Your task to perform on an android device: Search for Italian restaurants on Maps Image 0: 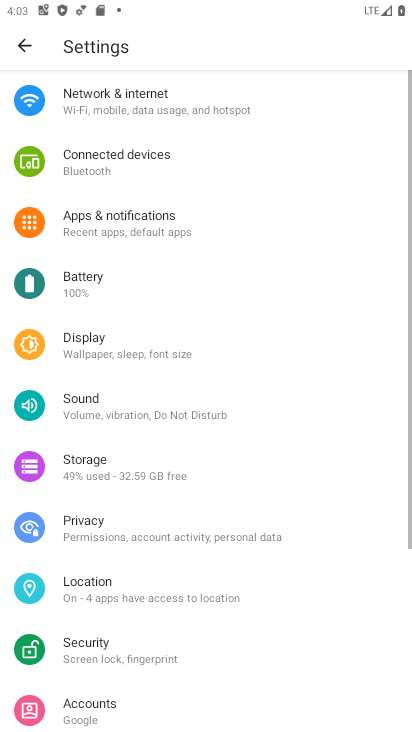
Step 0: press back button
Your task to perform on an android device: Search for Italian restaurants on Maps Image 1: 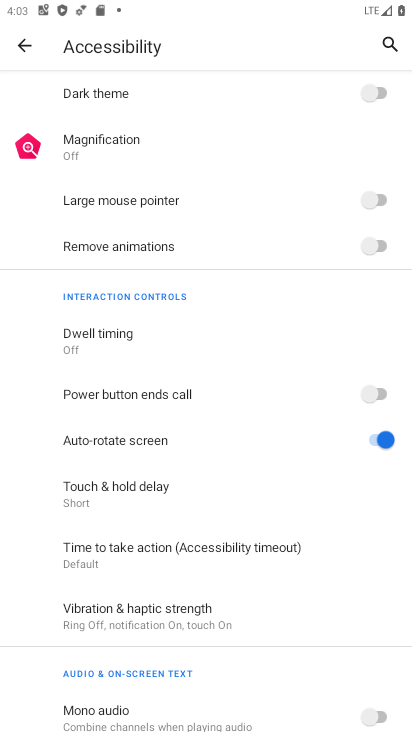
Step 1: press home button
Your task to perform on an android device: Search for Italian restaurants on Maps Image 2: 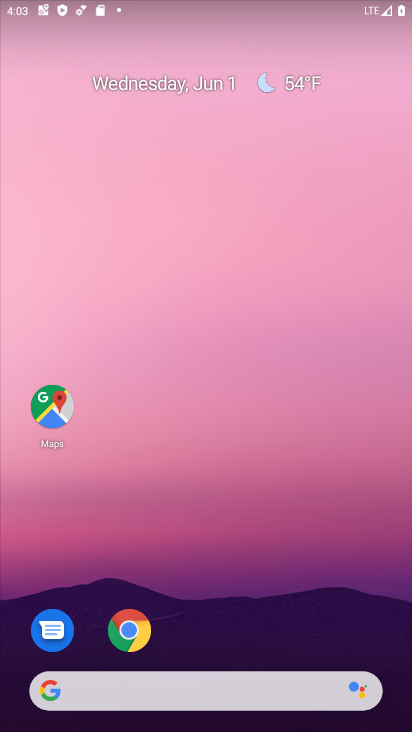
Step 2: drag from (338, 547) to (264, 6)
Your task to perform on an android device: Search for Italian restaurants on Maps Image 3: 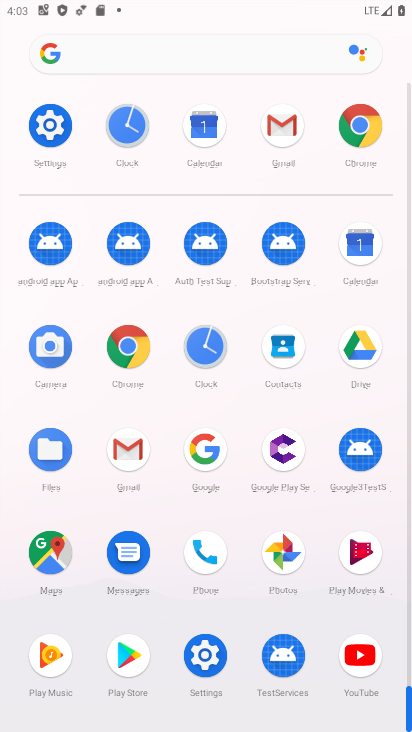
Step 3: drag from (15, 617) to (8, 226)
Your task to perform on an android device: Search for Italian restaurants on Maps Image 4: 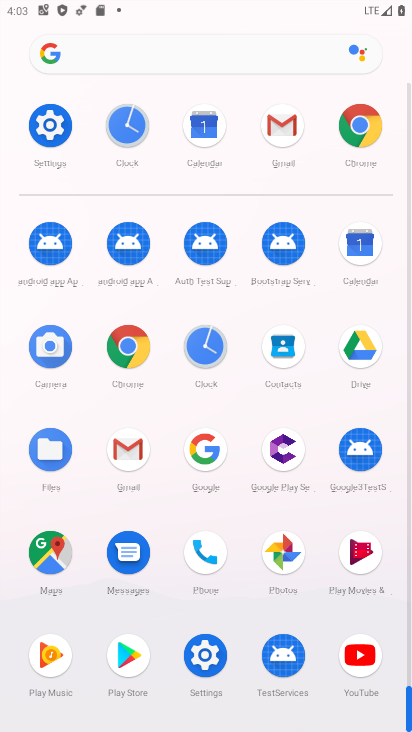
Step 4: click (43, 553)
Your task to perform on an android device: Search for Italian restaurants on Maps Image 5: 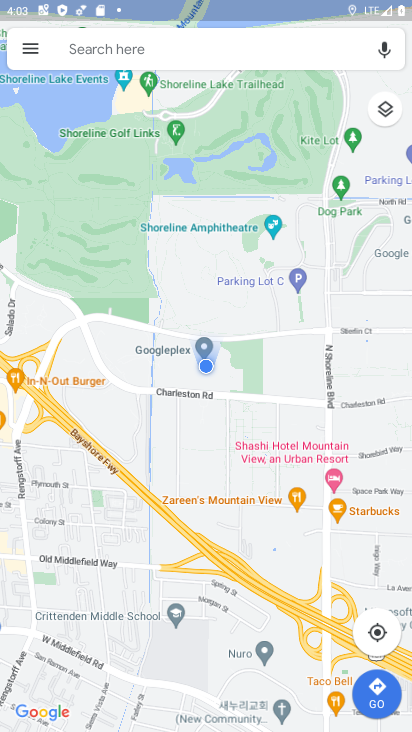
Step 5: click (178, 49)
Your task to perform on an android device: Search for Italian restaurants on Maps Image 6: 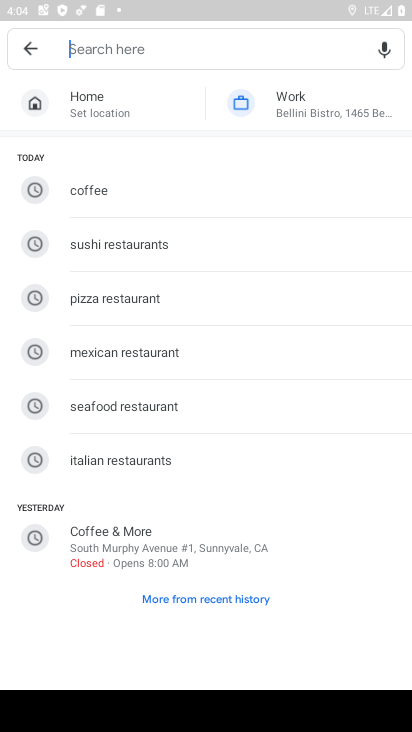
Step 6: click (127, 467)
Your task to perform on an android device: Search for Italian restaurants on Maps Image 7: 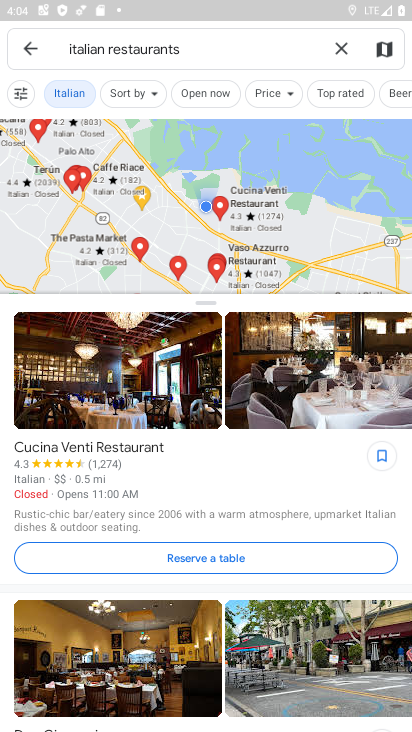
Step 7: task complete